Your task to perform on an android device: Search for sushi restaurants on Maps Image 0: 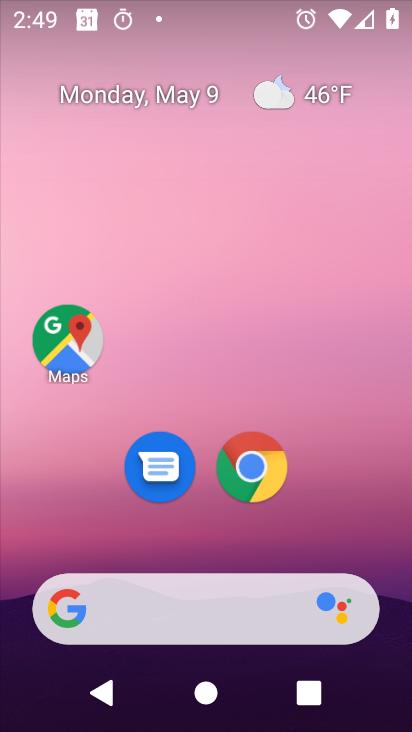
Step 0: drag from (345, 500) to (335, 0)
Your task to perform on an android device: Search for sushi restaurants on Maps Image 1: 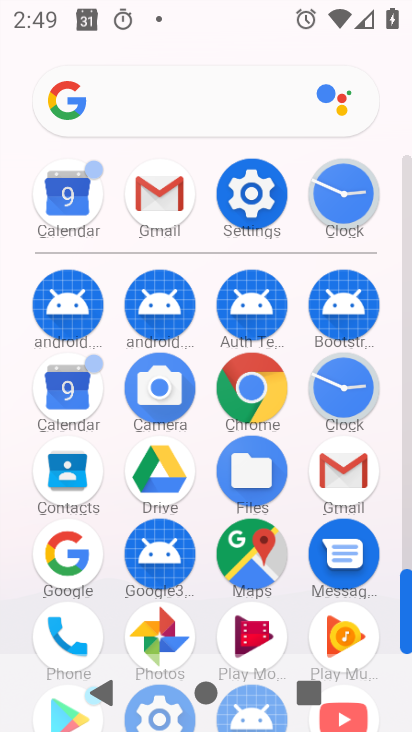
Step 1: click (268, 561)
Your task to perform on an android device: Search for sushi restaurants on Maps Image 2: 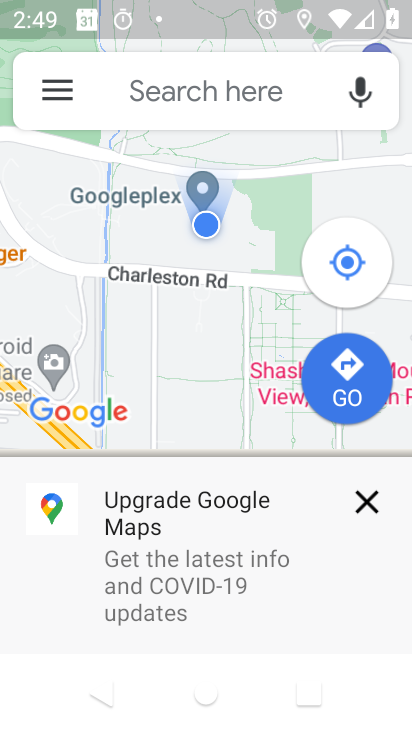
Step 2: click (214, 87)
Your task to perform on an android device: Search for sushi restaurants on Maps Image 3: 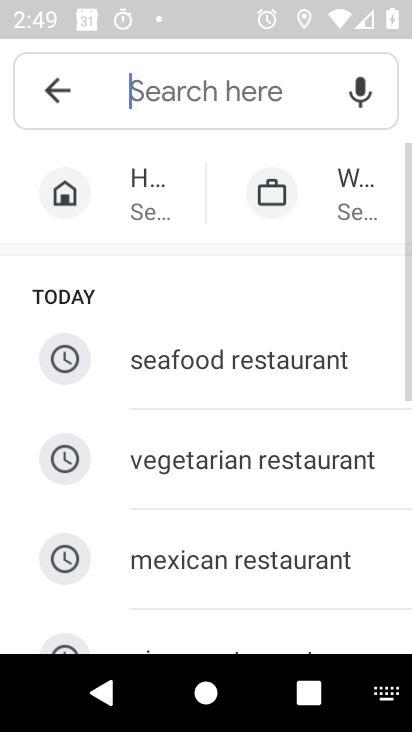
Step 3: drag from (296, 581) to (253, 192)
Your task to perform on an android device: Search for sushi restaurants on Maps Image 4: 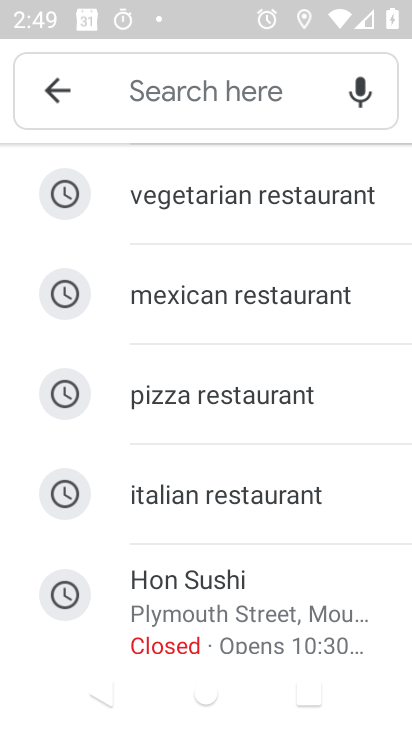
Step 4: click (174, 87)
Your task to perform on an android device: Search for sushi restaurants on Maps Image 5: 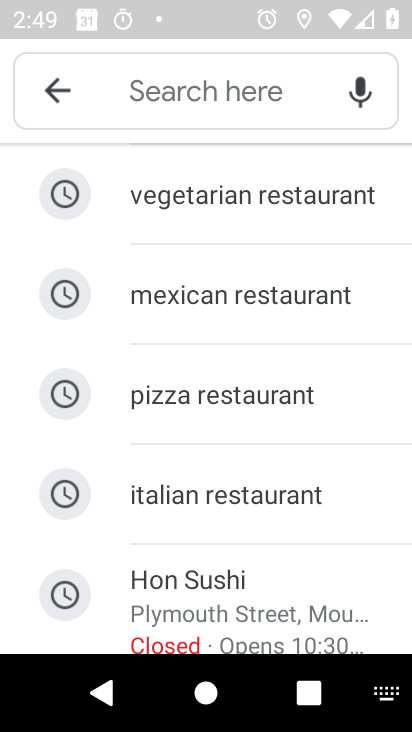
Step 5: type "sushi restaurants"
Your task to perform on an android device: Search for sushi restaurants on Maps Image 6: 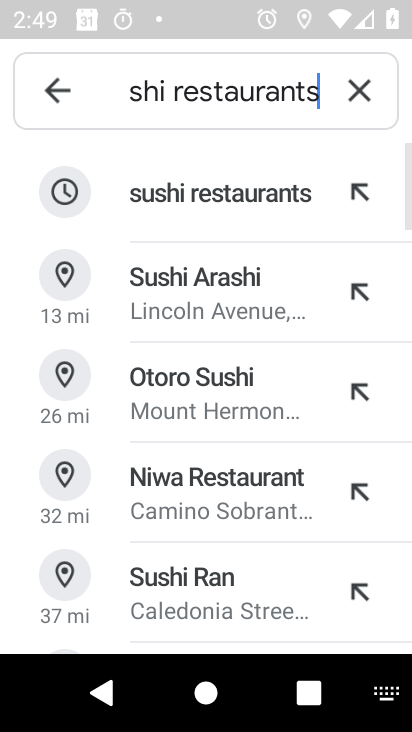
Step 6: click (250, 202)
Your task to perform on an android device: Search for sushi restaurants on Maps Image 7: 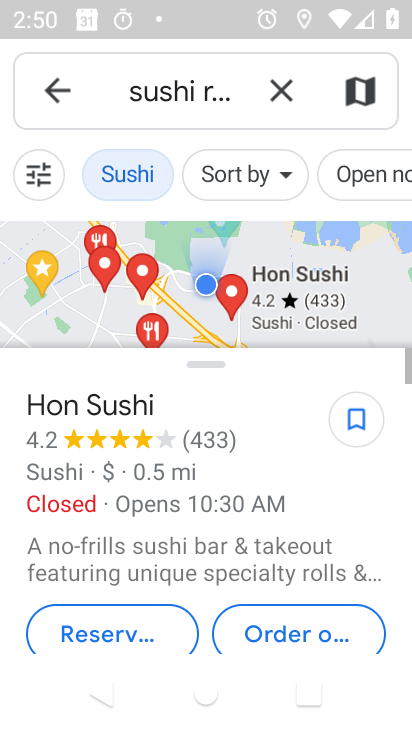
Step 7: task complete